Your task to perform on an android device: toggle show notifications on the lock screen Image 0: 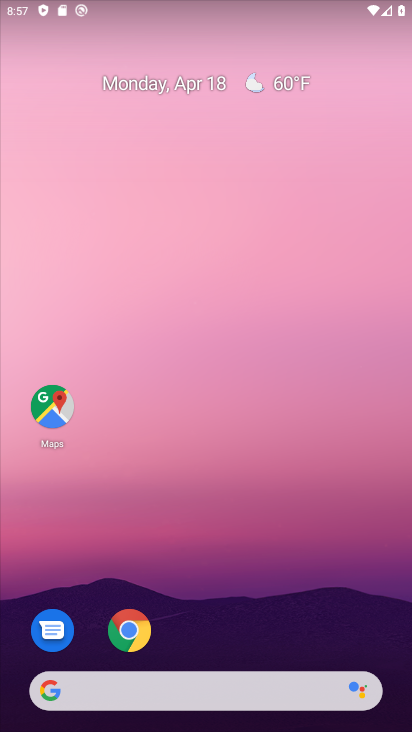
Step 0: drag from (249, 633) to (211, 114)
Your task to perform on an android device: toggle show notifications on the lock screen Image 1: 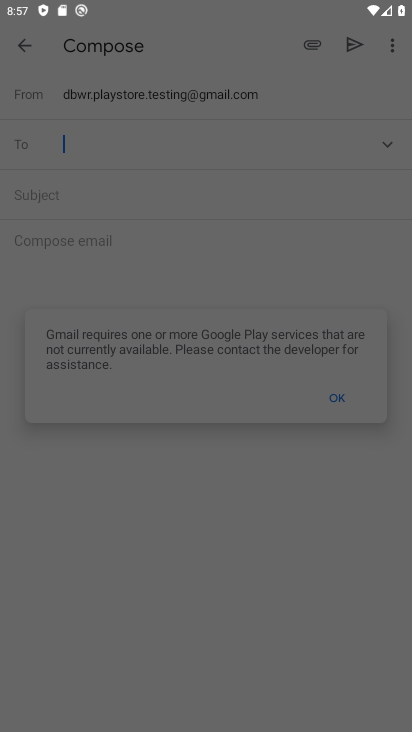
Step 1: press home button
Your task to perform on an android device: toggle show notifications on the lock screen Image 2: 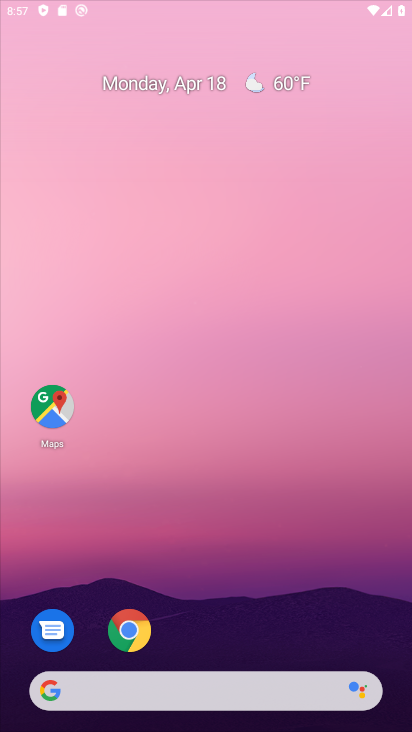
Step 2: drag from (242, 501) to (258, 188)
Your task to perform on an android device: toggle show notifications on the lock screen Image 3: 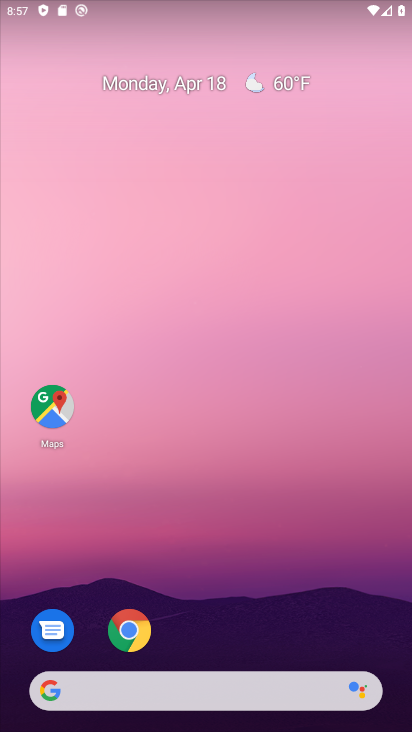
Step 3: drag from (315, 595) to (196, 110)
Your task to perform on an android device: toggle show notifications on the lock screen Image 4: 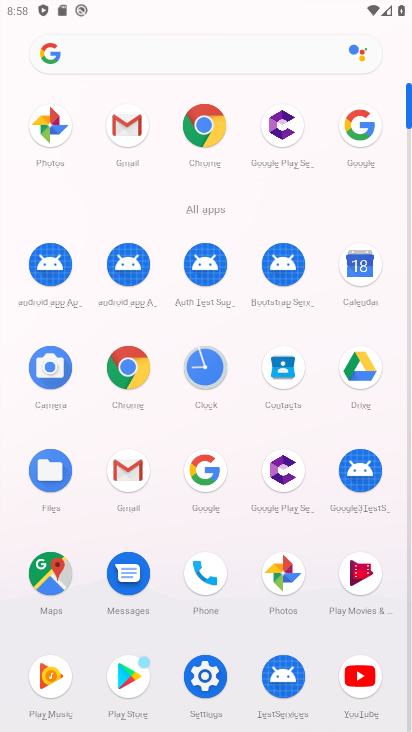
Step 4: drag from (245, 618) to (233, 388)
Your task to perform on an android device: toggle show notifications on the lock screen Image 5: 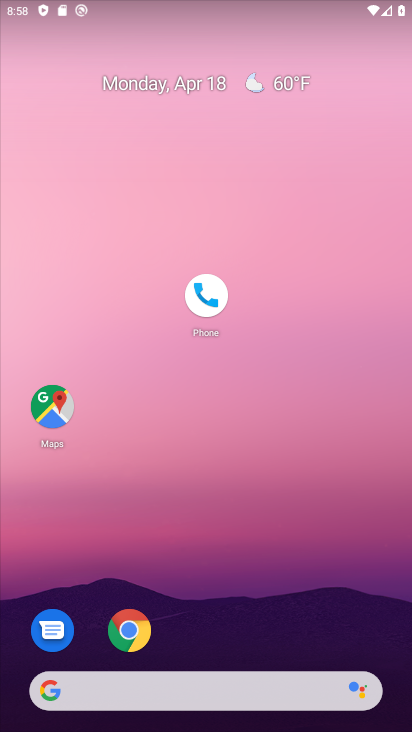
Step 5: drag from (293, 511) to (259, 150)
Your task to perform on an android device: toggle show notifications on the lock screen Image 6: 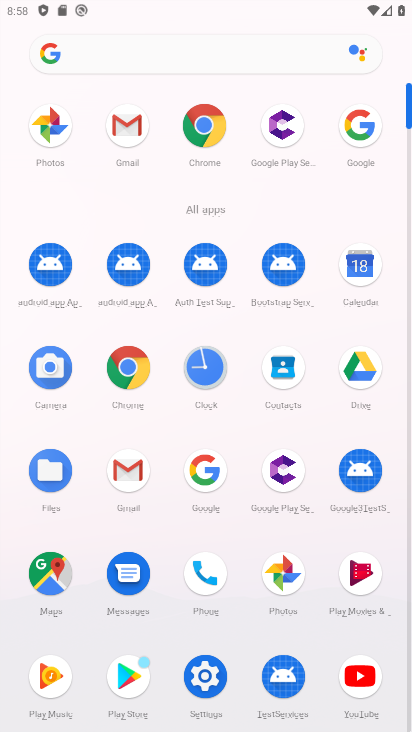
Step 6: drag from (244, 622) to (223, 383)
Your task to perform on an android device: toggle show notifications on the lock screen Image 7: 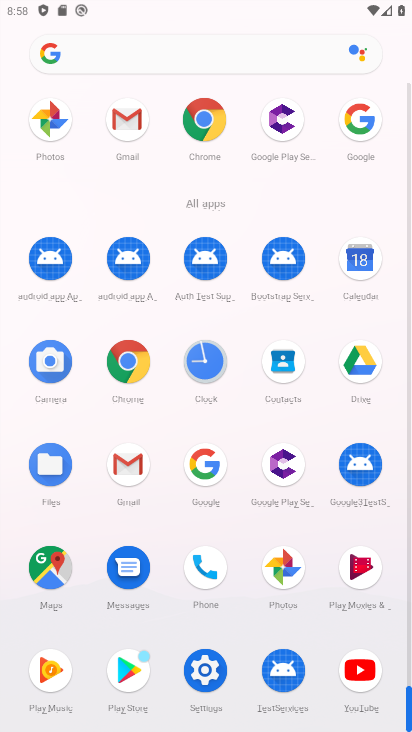
Step 7: click (214, 666)
Your task to perform on an android device: toggle show notifications on the lock screen Image 8: 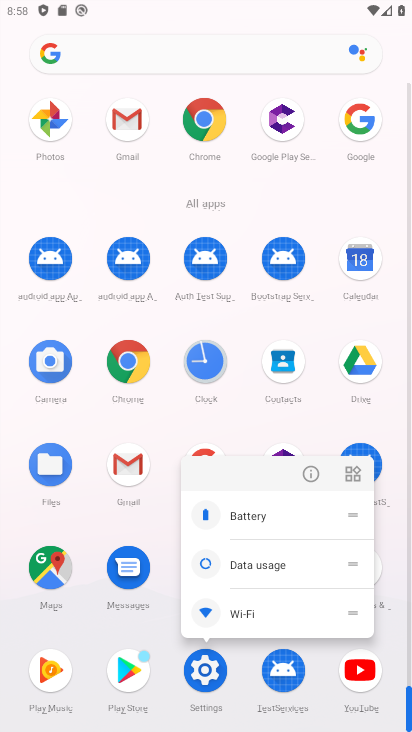
Step 8: click (213, 672)
Your task to perform on an android device: toggle show notifications on the lock screen Image 9: 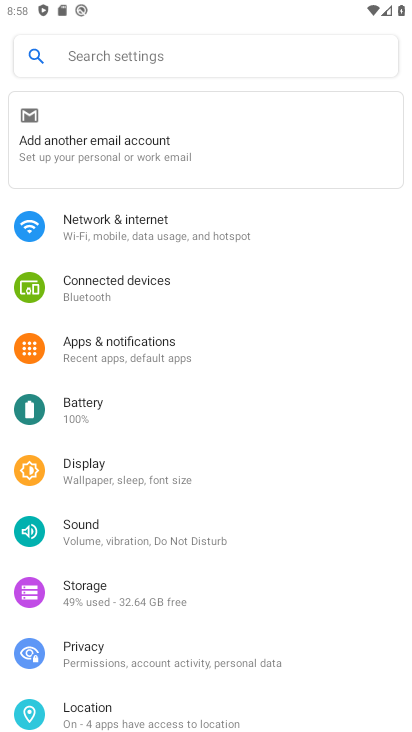
Step 9: click (148, 353)
Your task to perform on an android device: toggle show notifications on the lock screen Image 10: 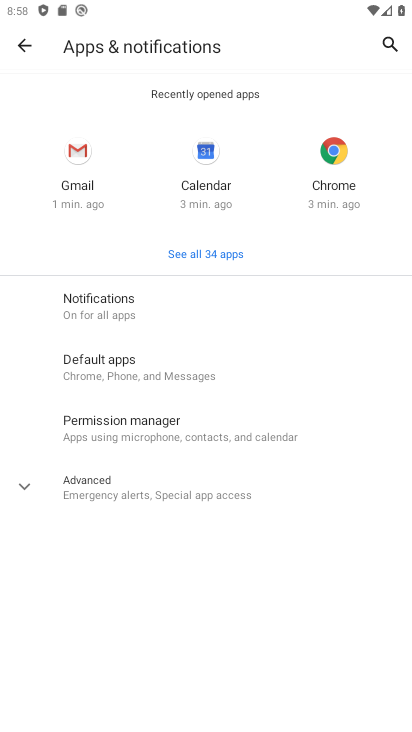
Step 10: click (109, 309)
Your task to perform on an android device: toggle show notifications on the lock screen Image 11: 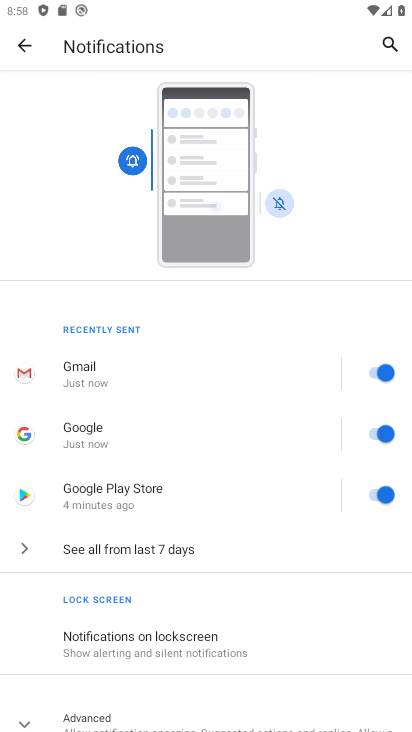
Step 11: click (202, 650)
Your task to perform on an android device: toggle show notifications on the lock screen Image 12: 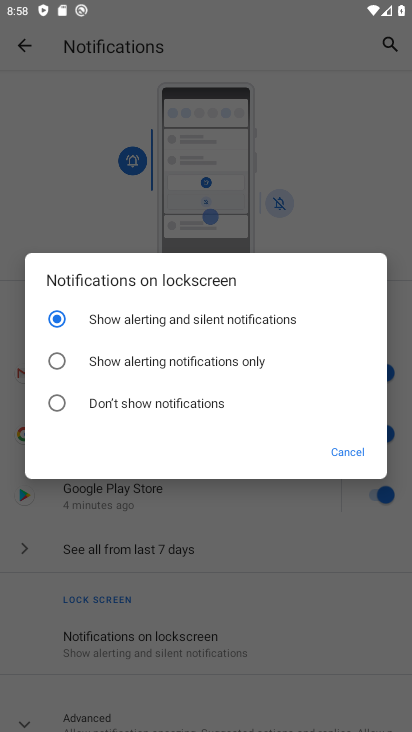
Step 12: click (163, 367)
Your task to perform on an android device: toggle show notifications on the lock screen Image 13: 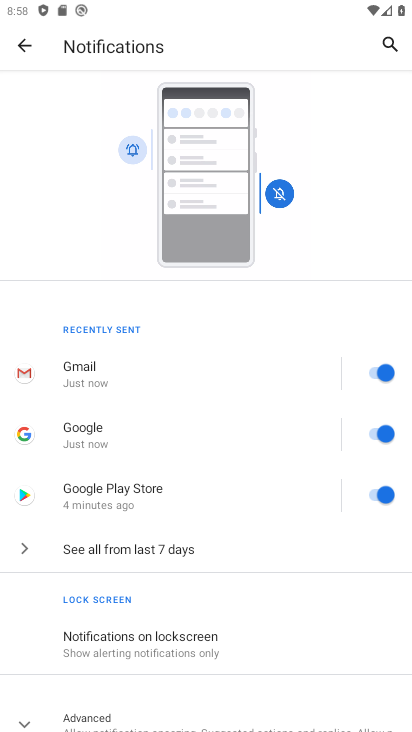
Step 13: task complete